Your task to perform on an android device: check google app version Image 0: 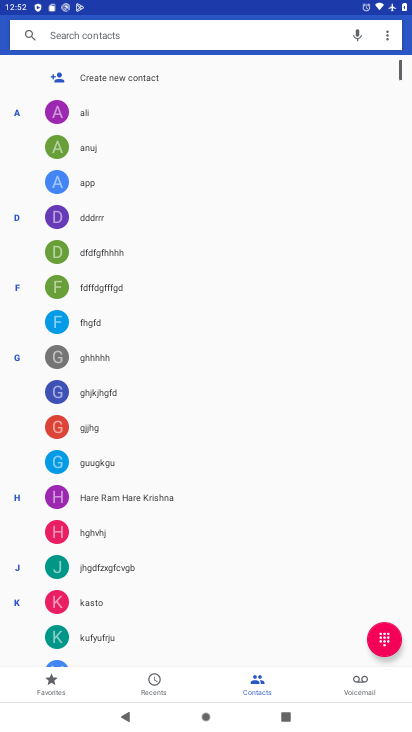
Step 0: press home button
Your task to perform on an android device: check google app version Image 1: 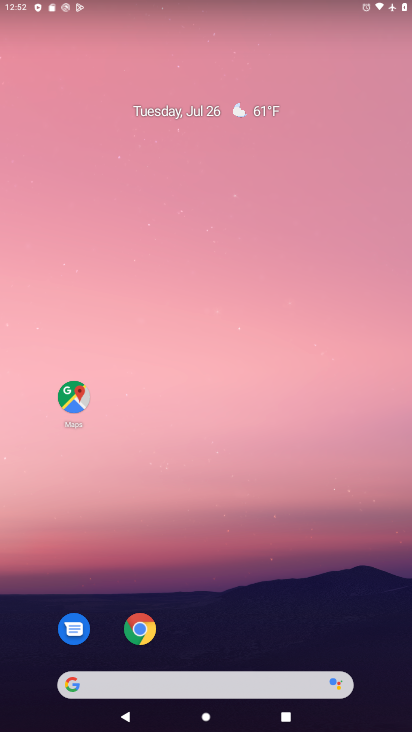
Step 1: drag from (187, 649) to (307, 5)
Your task to perform on an android device: check google app version Image 2: 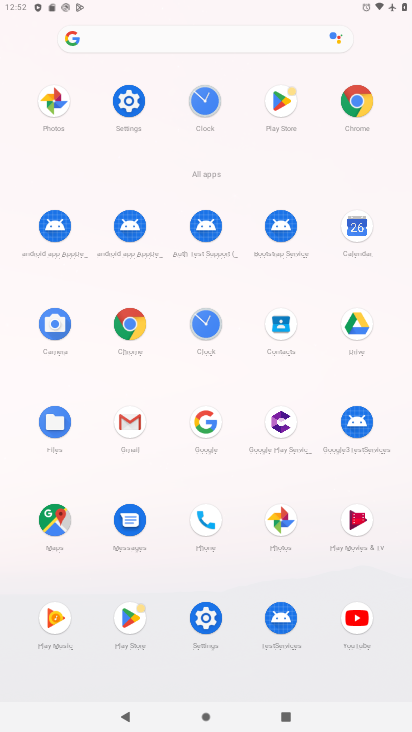
Step 2: click (211, 415)
Your task to perform on an android device: check google app version Image 3: 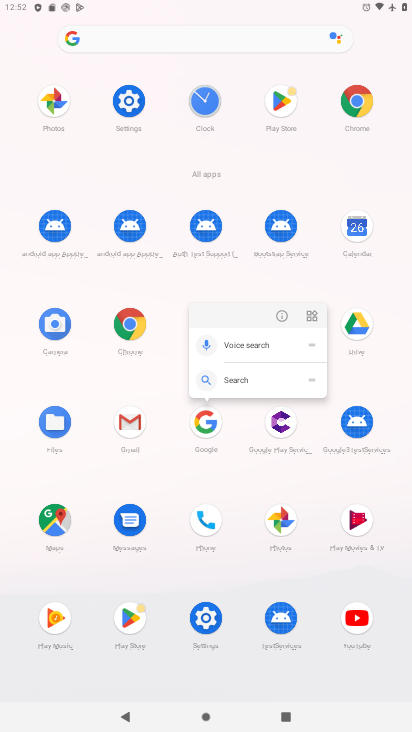
Step 3: click (280, 306)
Your task to perform on an android device: check google app version Image 4: 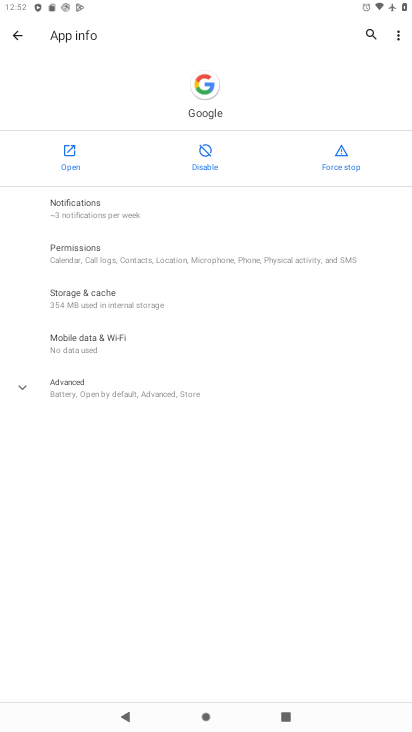
Step 4: click (54, 382)
Your task to perform on an android device: check google app version Image 5: 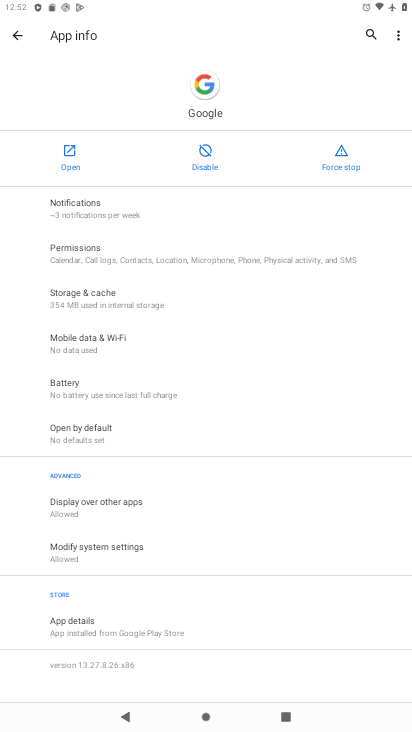
Step 5: task complete